Your task to perform on an android device: Search for Mexican restaurants on Maps Image 0: 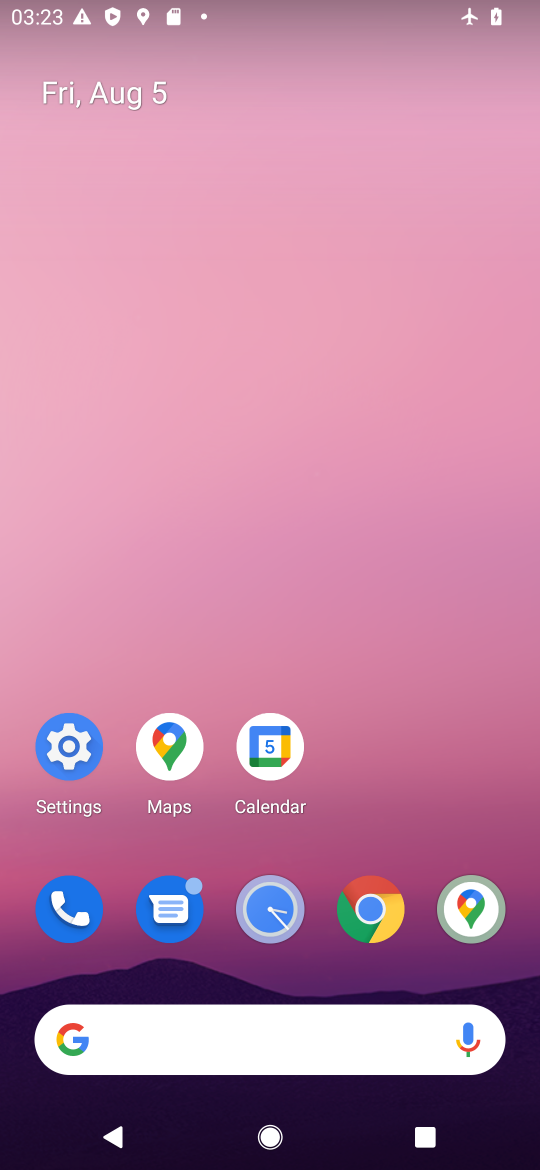
Step 0: click (466, 900)
Your task to perform on an android device: Search for Mexican restaurants on Maps Image 1: 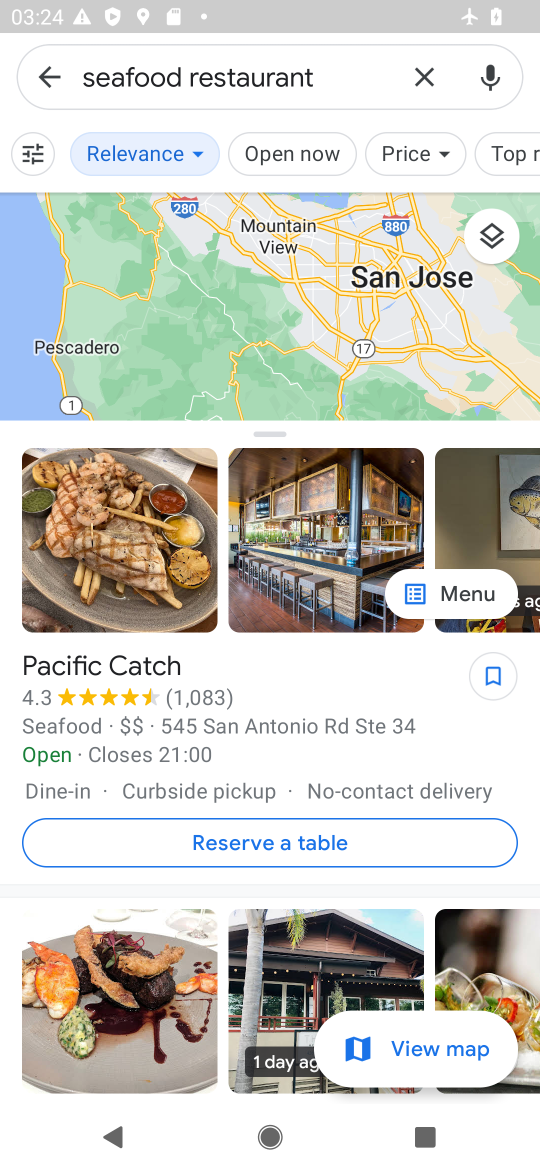
Step 1: click (426, 65)
Your task to perform on an android device: Search for Mexican restaurants on Maps Image 2: 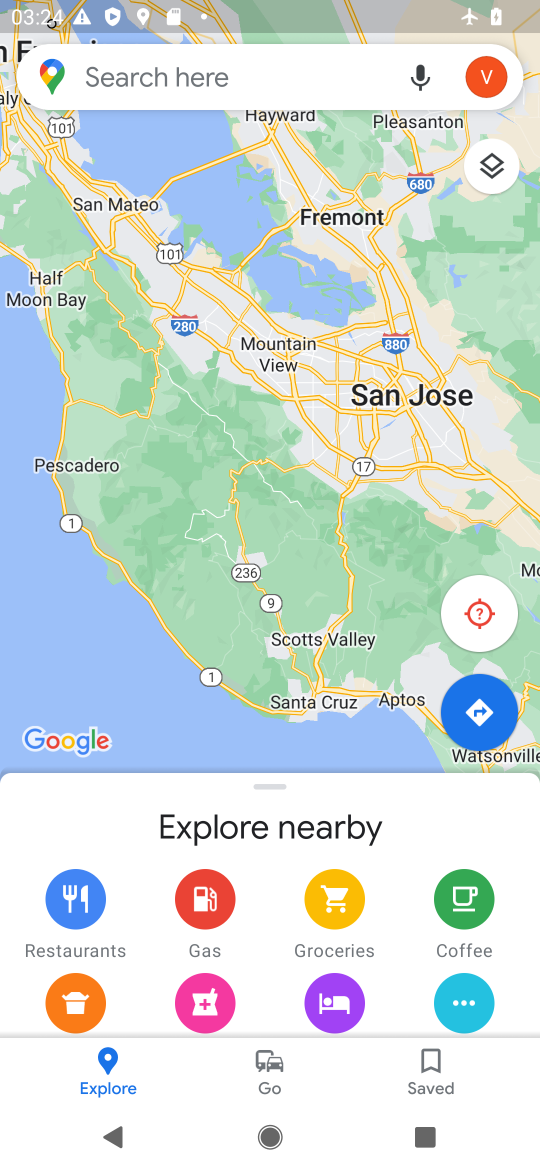
Step 2: click (235, 66)
Your task to perform on an android device: Search for Mexican restaurants on Maps Image 3: 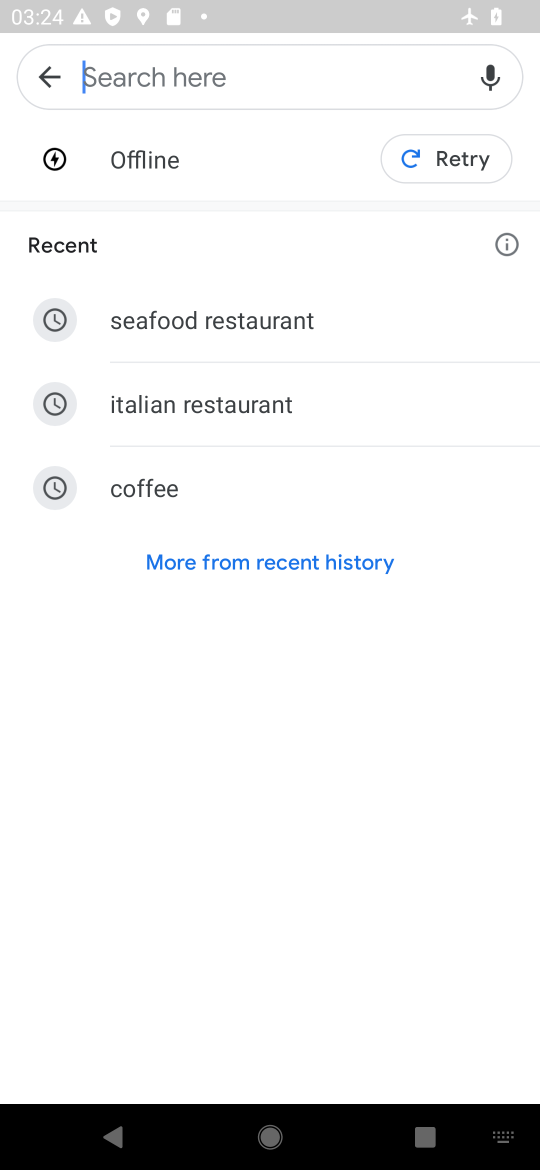
Step 3: click (287, 563)
Your task to perform on an android device: Search for Mexican restaurants on Maps Image 4: 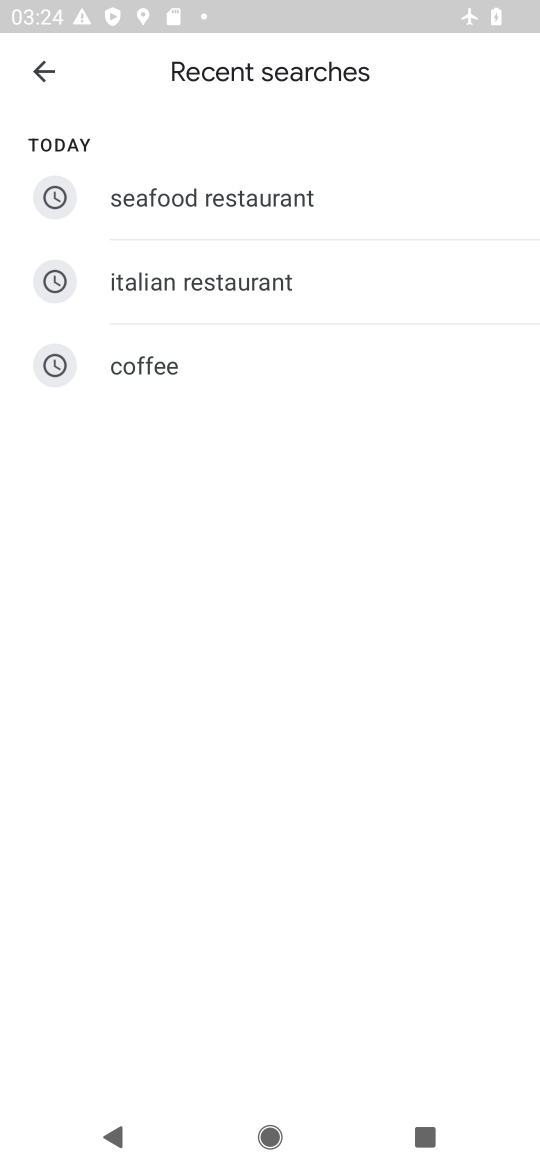
Step 4: type "mexican"
Your task to perform on an android device: Search for Mexican restaurants on Maps Image 5: 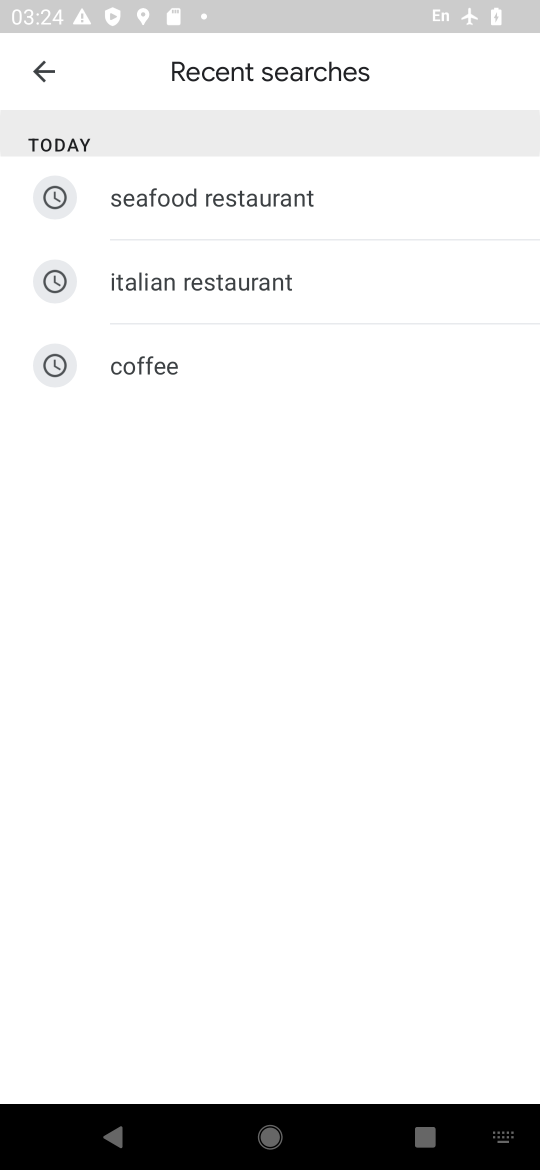
Step 5: click (45, 65)
Your task to perform on an android device: Search for Mexican restaurants on Maps Image 6: 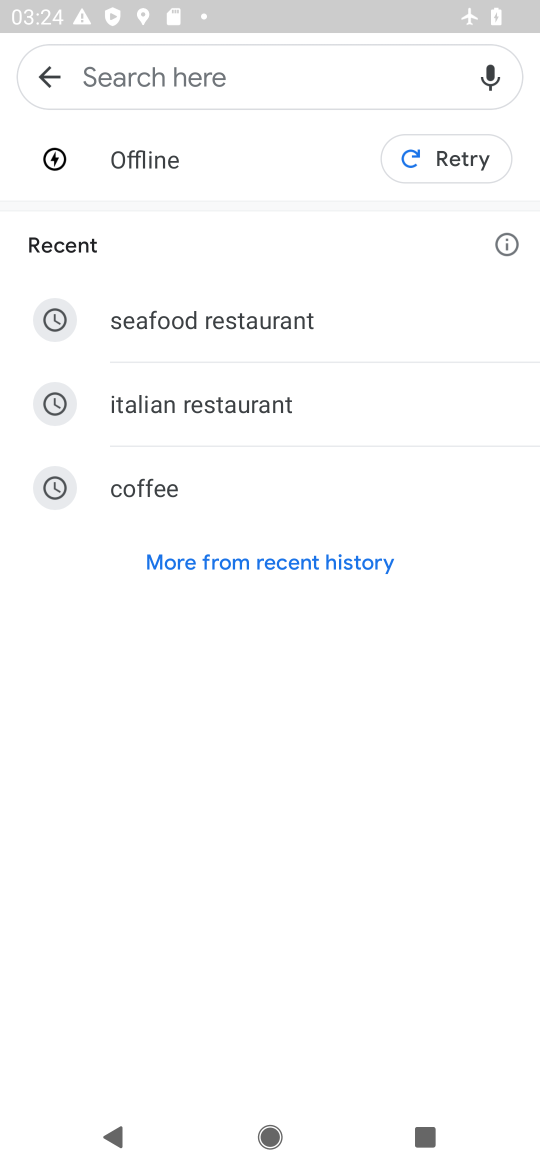
Step 6: click (284, 86)
Your task to perform on an android device: Search for Mexican restaurants on Maps Image 7: 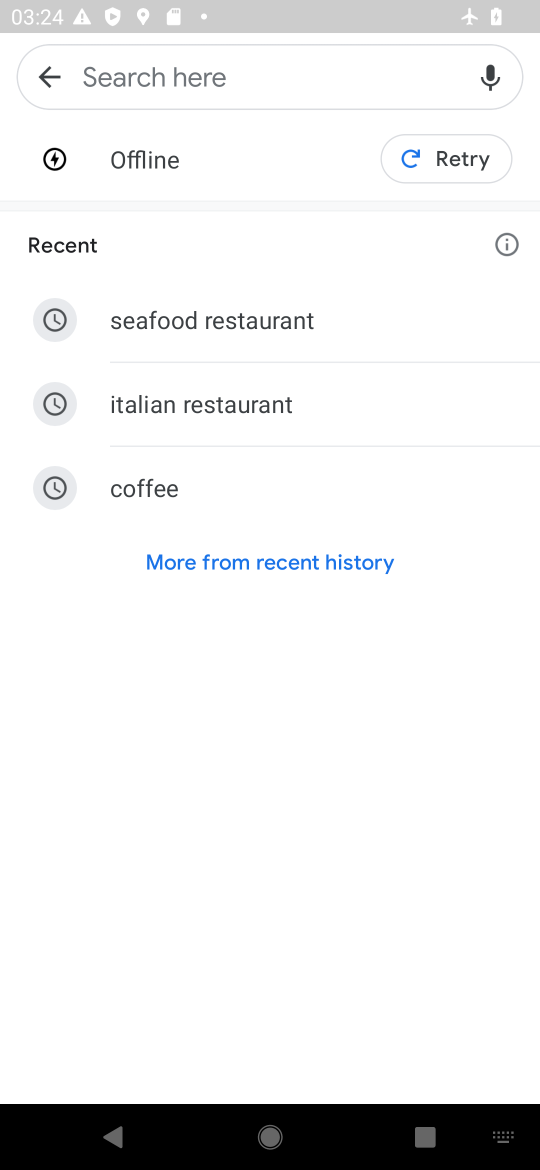
Step 7: type "maxican"
Your task to perform on an android device: Search for Mexican restaurants on Maps Image 8: 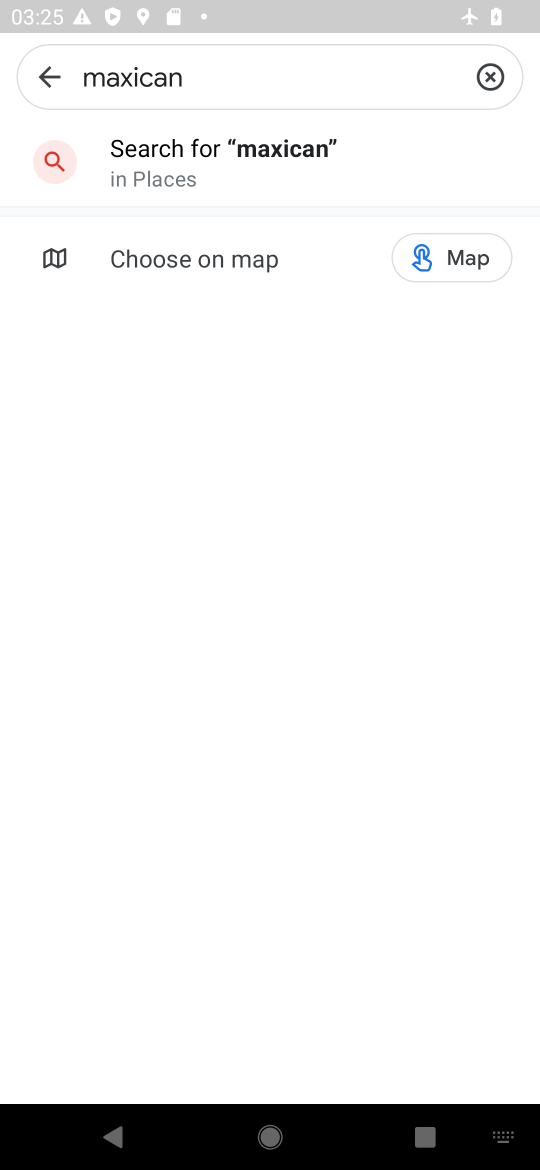
Step 8: task complete